Your task to perform on an android device: add a label to a message in the gmail app Image 0: 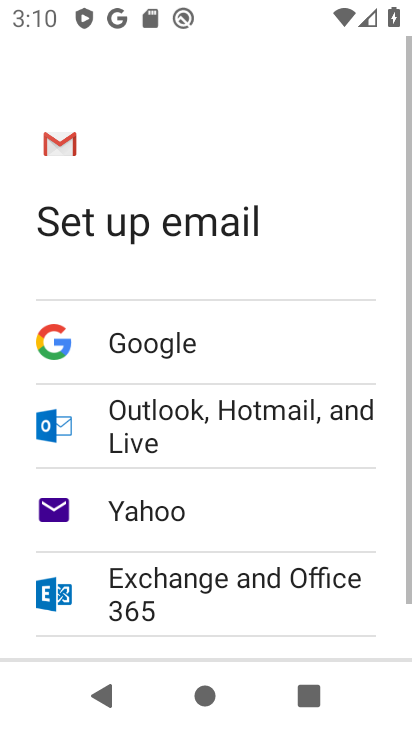
Step 0: press back button
Your task to perform on an android device: add a label to a message in the gmail app Image 1: 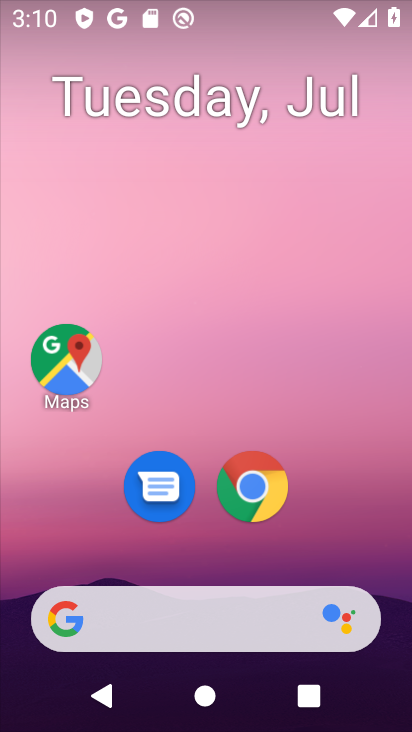
Step 1: drag from (213, 564) to (231, 15)
Your task to perform on an android device: add a label to a message in the gmail app Image 2: 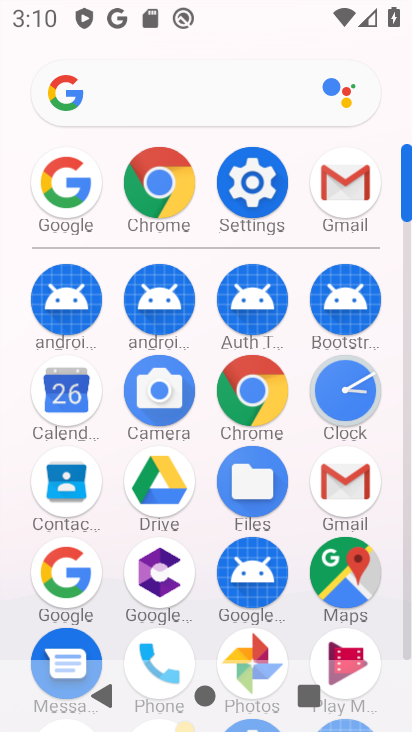
Step 2: click (342, 178)
Your task to perform on an android device: add a label to a message in the gmail app Image 3: 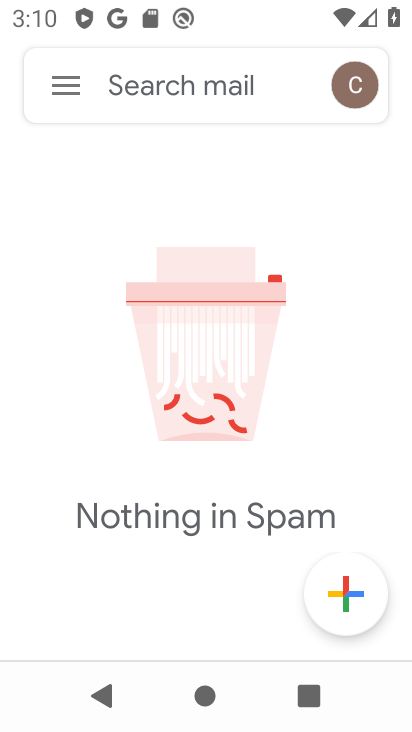
Step 3: click (71, 77)
Your task to perform on an android device: add a label to a message in the gmail app Image 4: 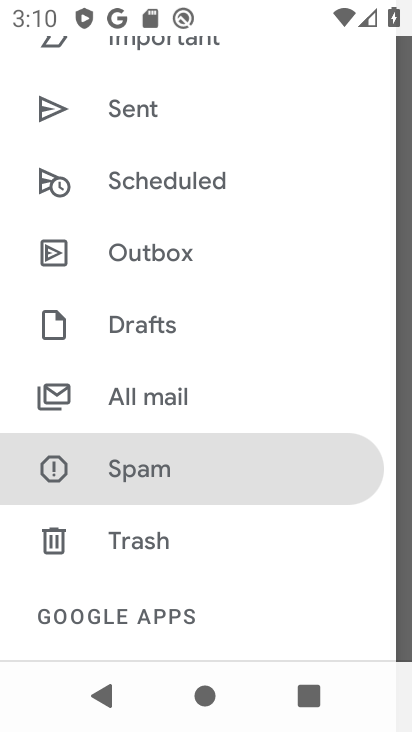
Step 4: click (148, 400)
Your task to perform on an android device: add a label to a message in the gmail app Image 5: 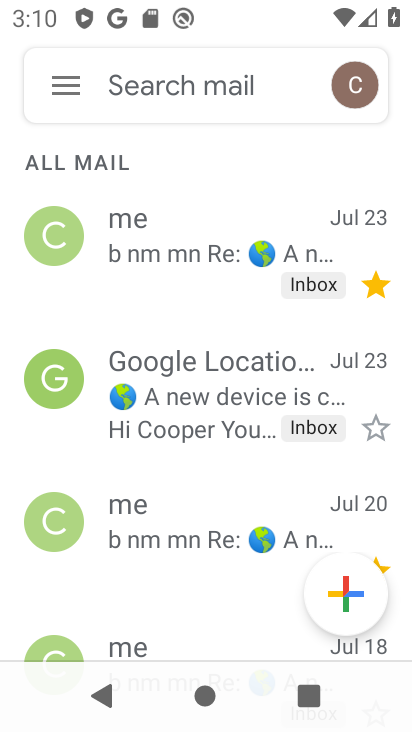
Step 5: click (176, 234)
Your task to perform on an android device: add a label to a message in the gmail app Image 6: 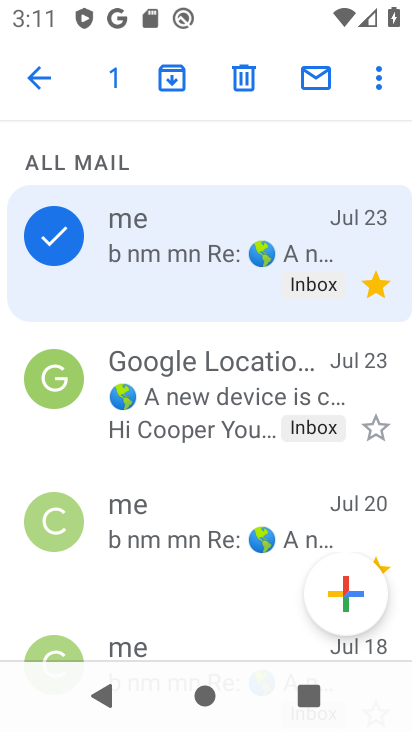
Step 6: click (379, 89)
Your task to perform on an android device: add a label to a message in the gmail app Image 7: 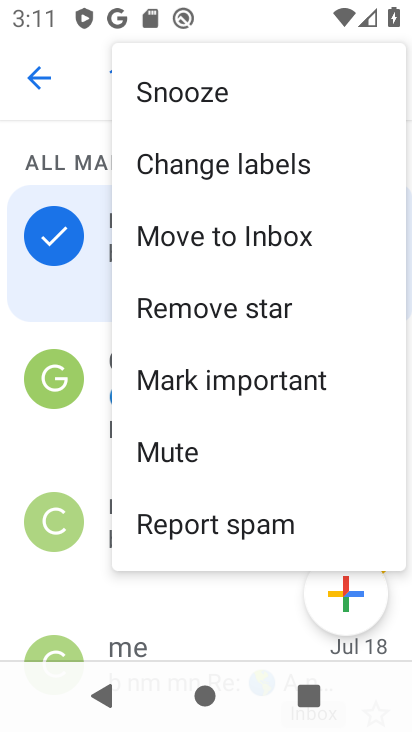
Step 7: click (246, 162)
Your task to perform on an android device: add a label to a message in the gmail app Image 8: 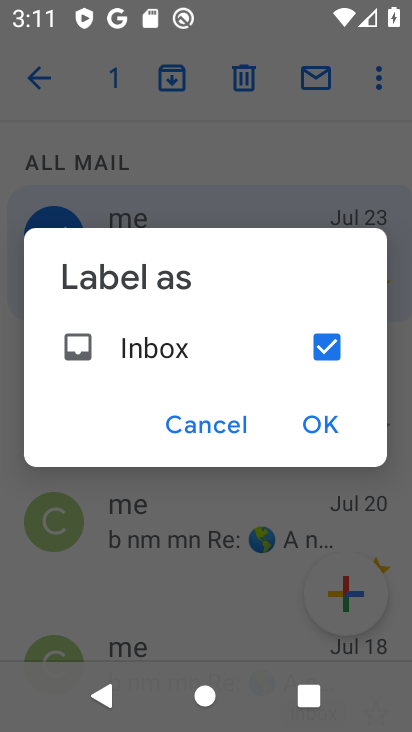
Step 8: click (333, 415)
Your task to perform on an android device: add a label to a message in the gmail app Image 9: 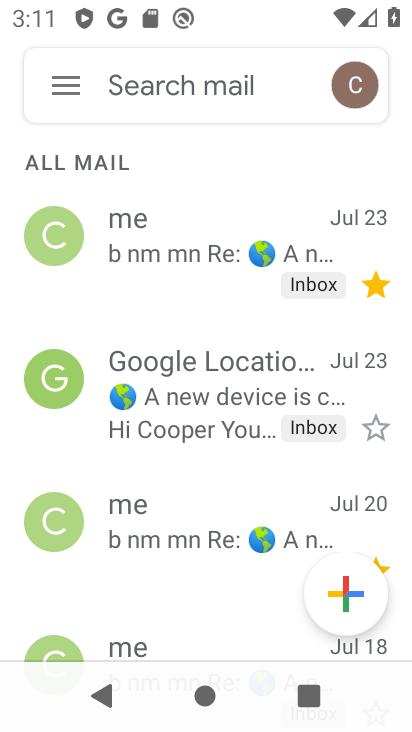
Step 9: task complete